Your task to perform on an android device: Go to Maps Image 0: 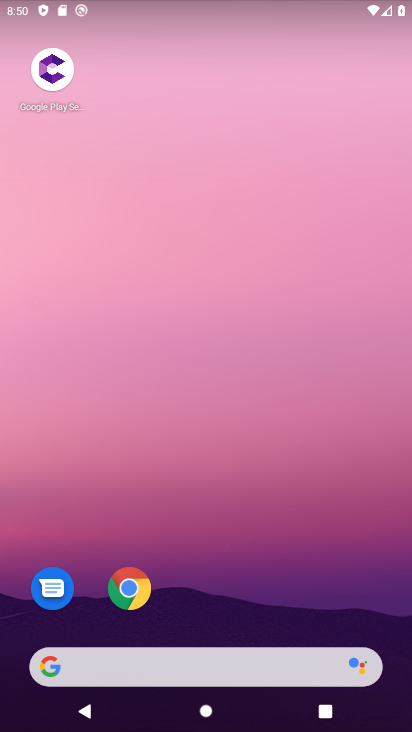
Step 0: drag from (51, 431) to (372, 386)
Your task to perform on an android device: Go to Maps Image 1: 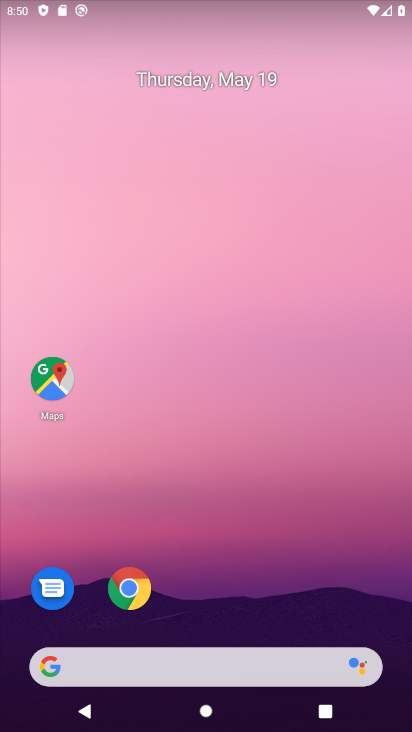
Step 1: click (59, 386)
Your task to perform on an android device: Go to Maps Image 2: 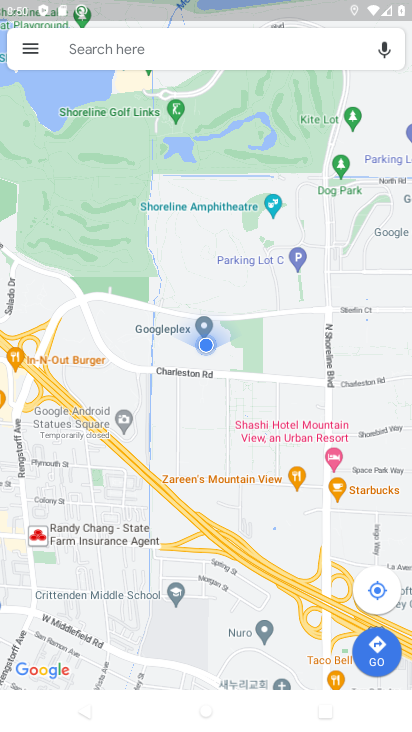
Step 2: task complete